Your task to perform on an android device: open app "Firefox Browser" (install if not already installed) Image 0: 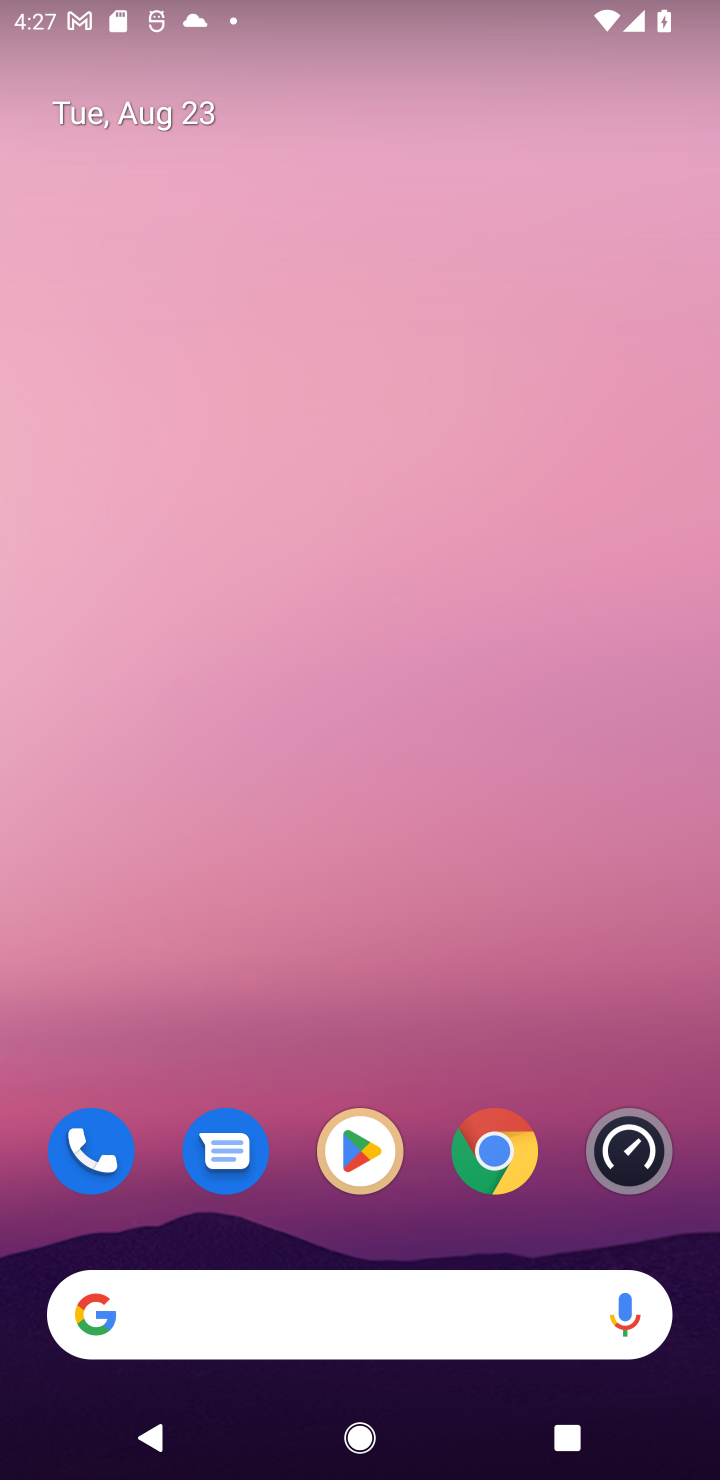
Step 0: click (355, 1147)
Your task to perform on an android device: open app "Firefox Browser" (install if not already installed) Image 1: 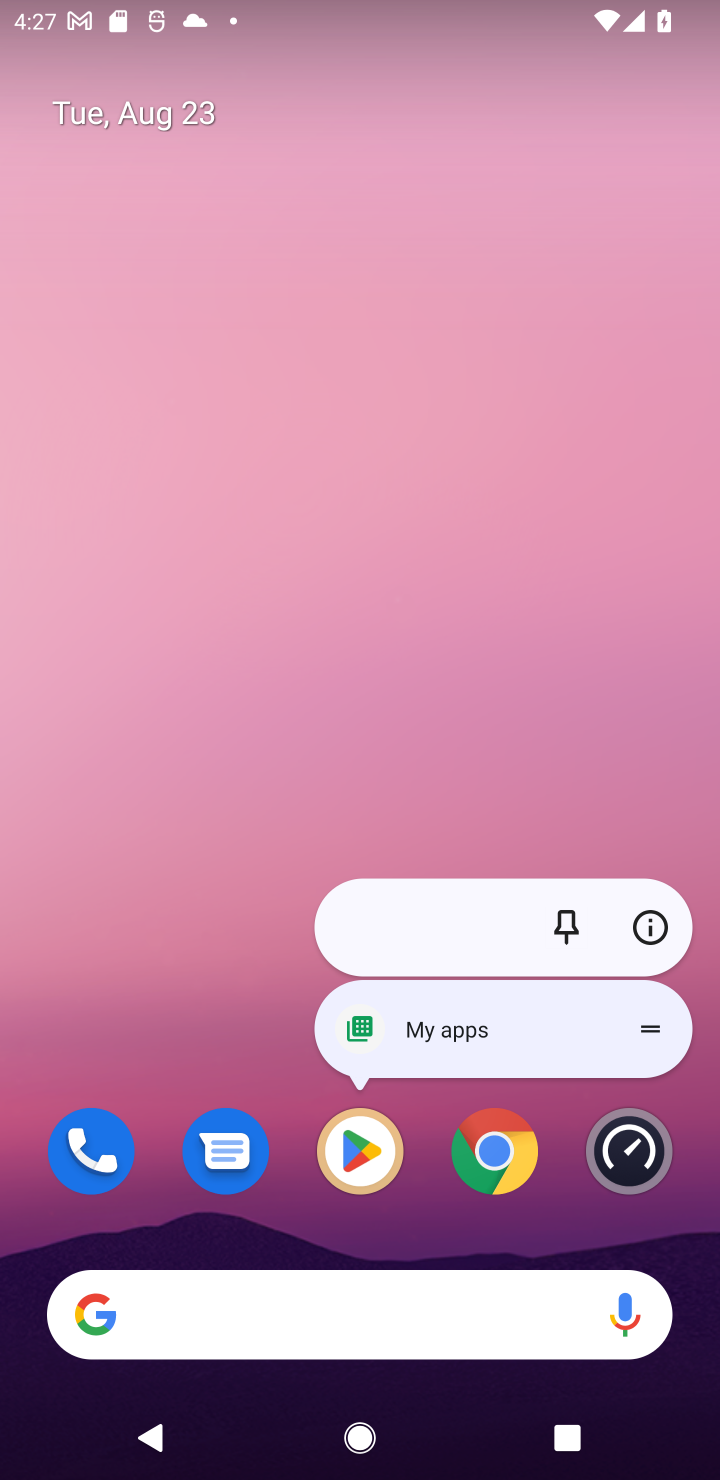
Step 1: click (355, 1157)
Your task to perform on an android device: open app "Firefox Browser" (install if not already installed) Image 2: 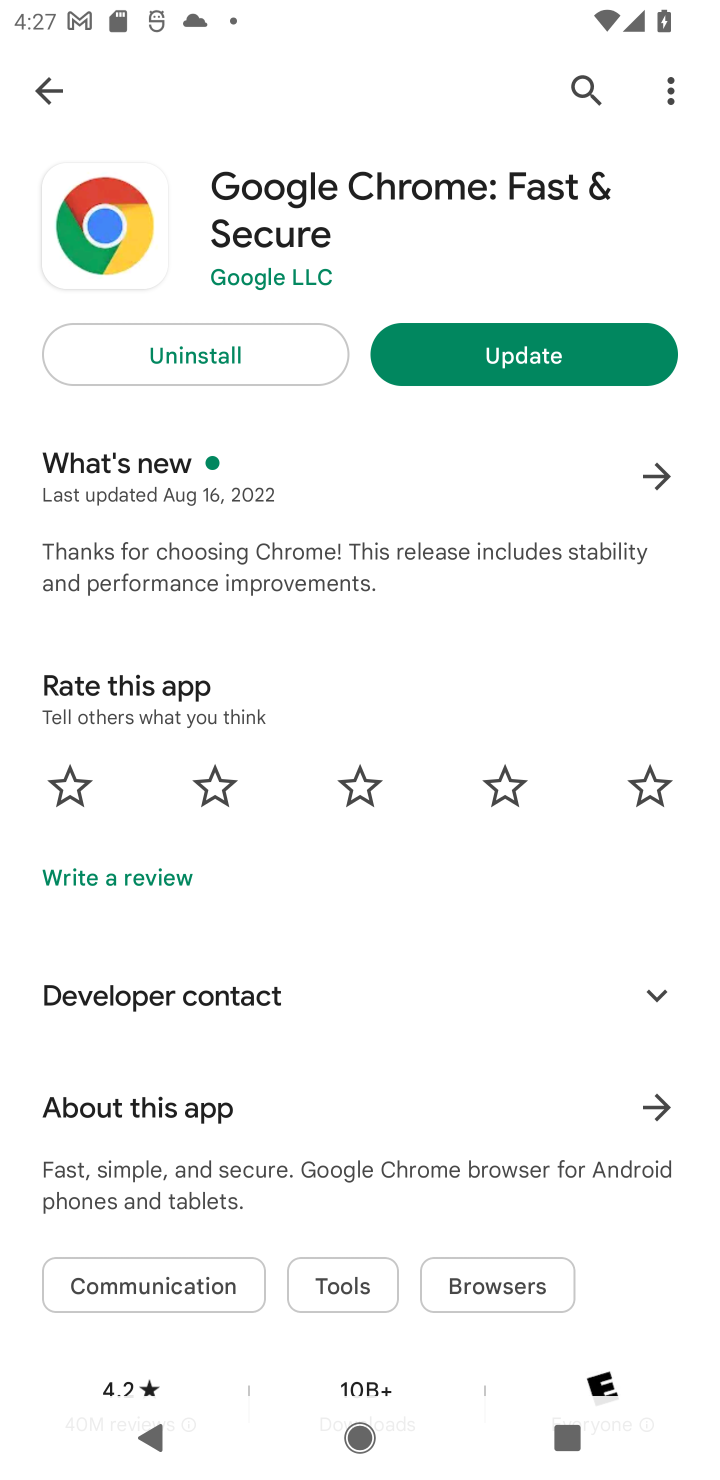
Step 2: click (570, 83)
Your task to perform on an android device: open app "Firefox Browser" (install if not already installed) Image 3: 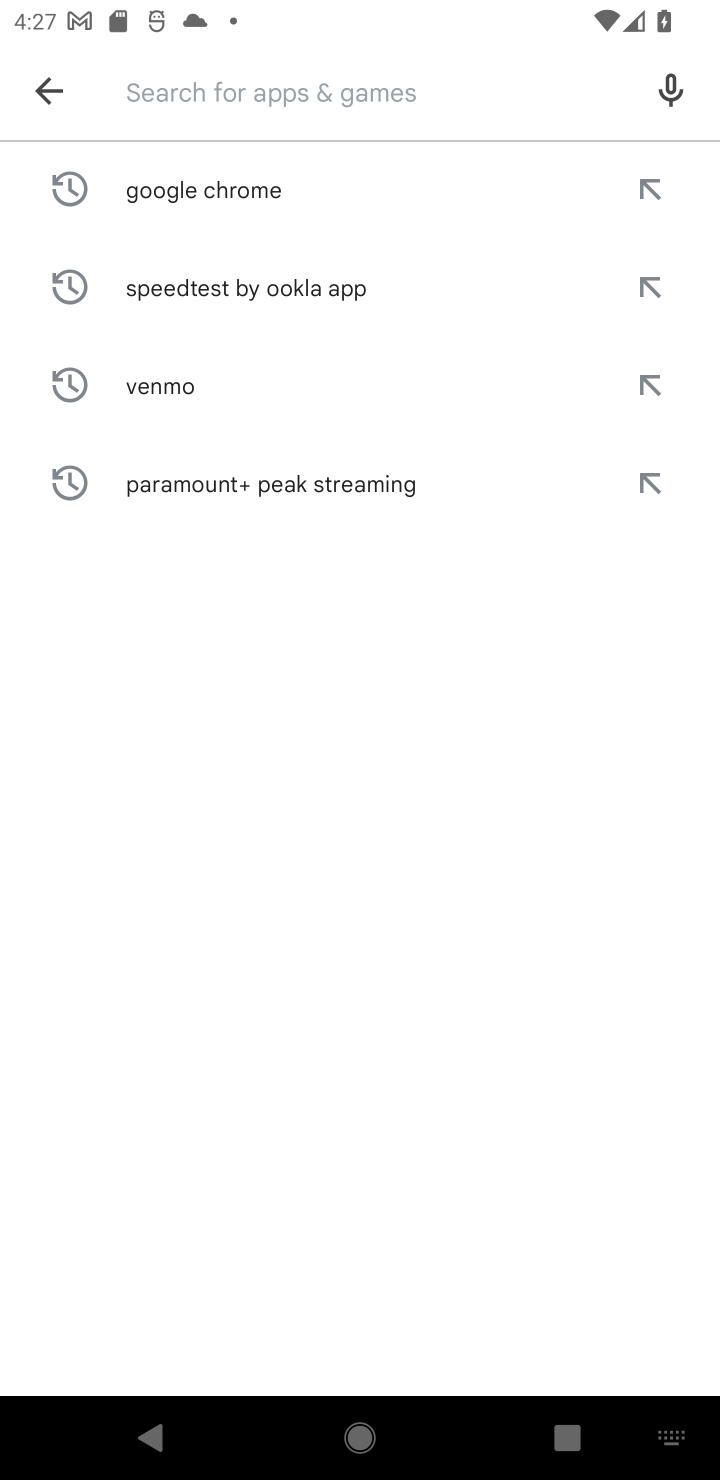
Step 3: type "Firefox Browser"
Your task to perform on an android device: open app "Firefox Browser" (install if not already installed) Image 4: 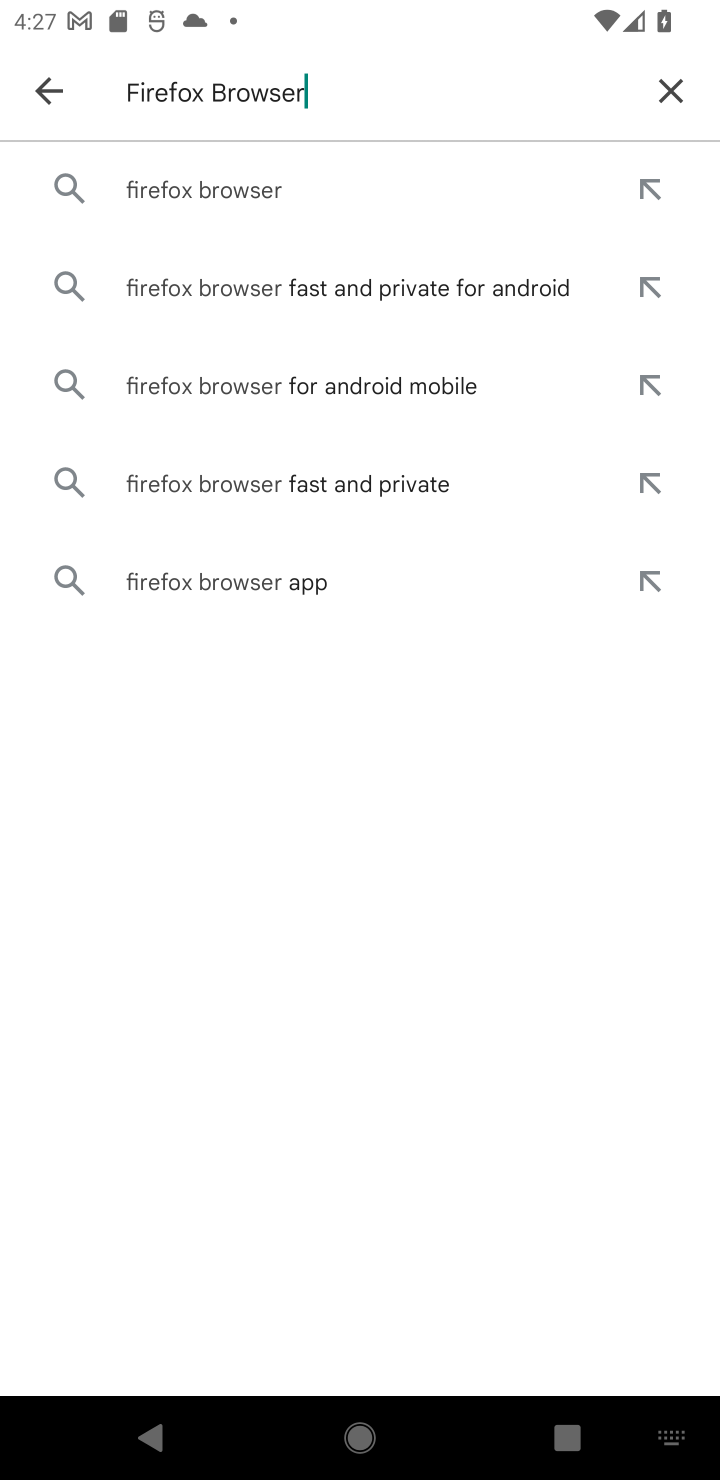
Step 4: click (188, 183)
Your task to perform on an android device: open app "Firefox Browser" (install if not already installed) Image 5: 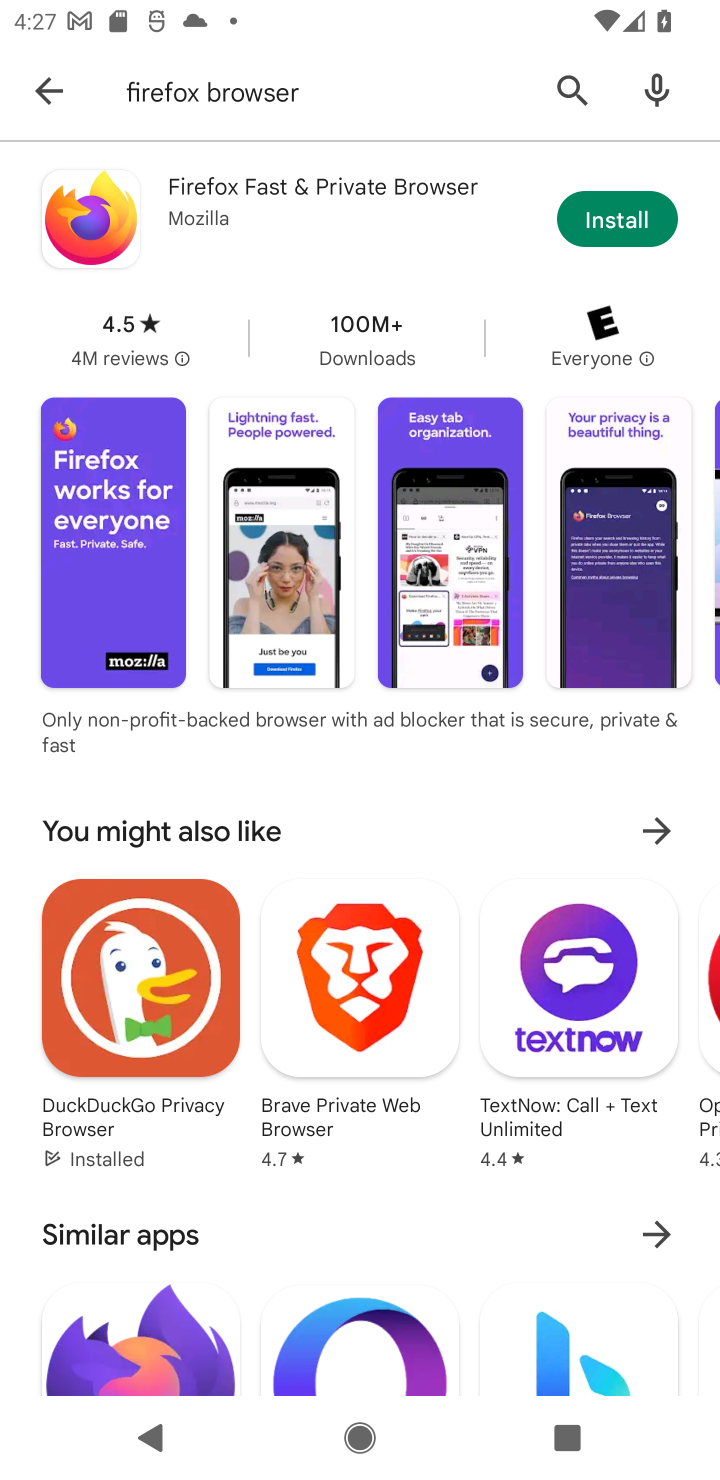
Step 5: click (597, 204)
Your task to perform on an android device: open app "Firefox Browser" (install if not already installed) Image 6: 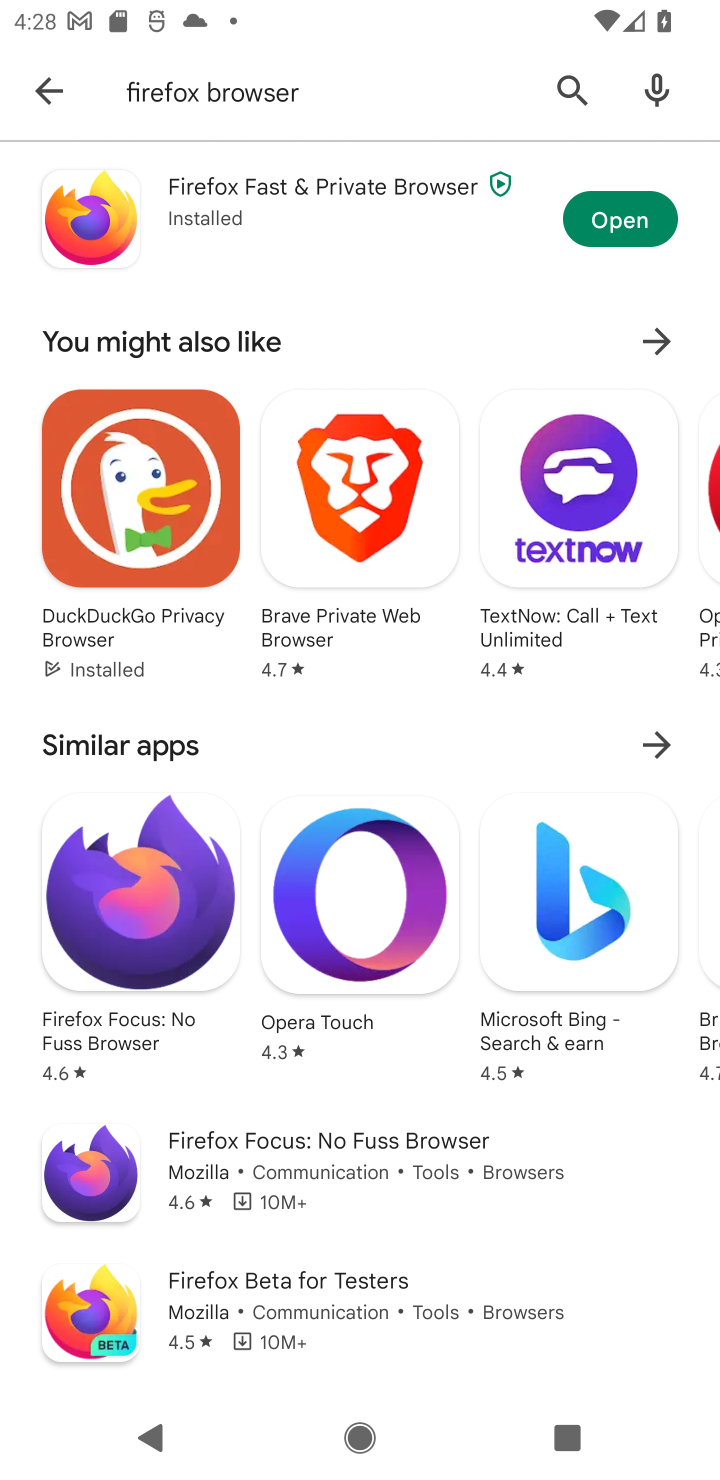
Step 6: click (633, 215)
Your task to perform on an android device: open app "Firefox Browser" (install if not already installed) Image 7: 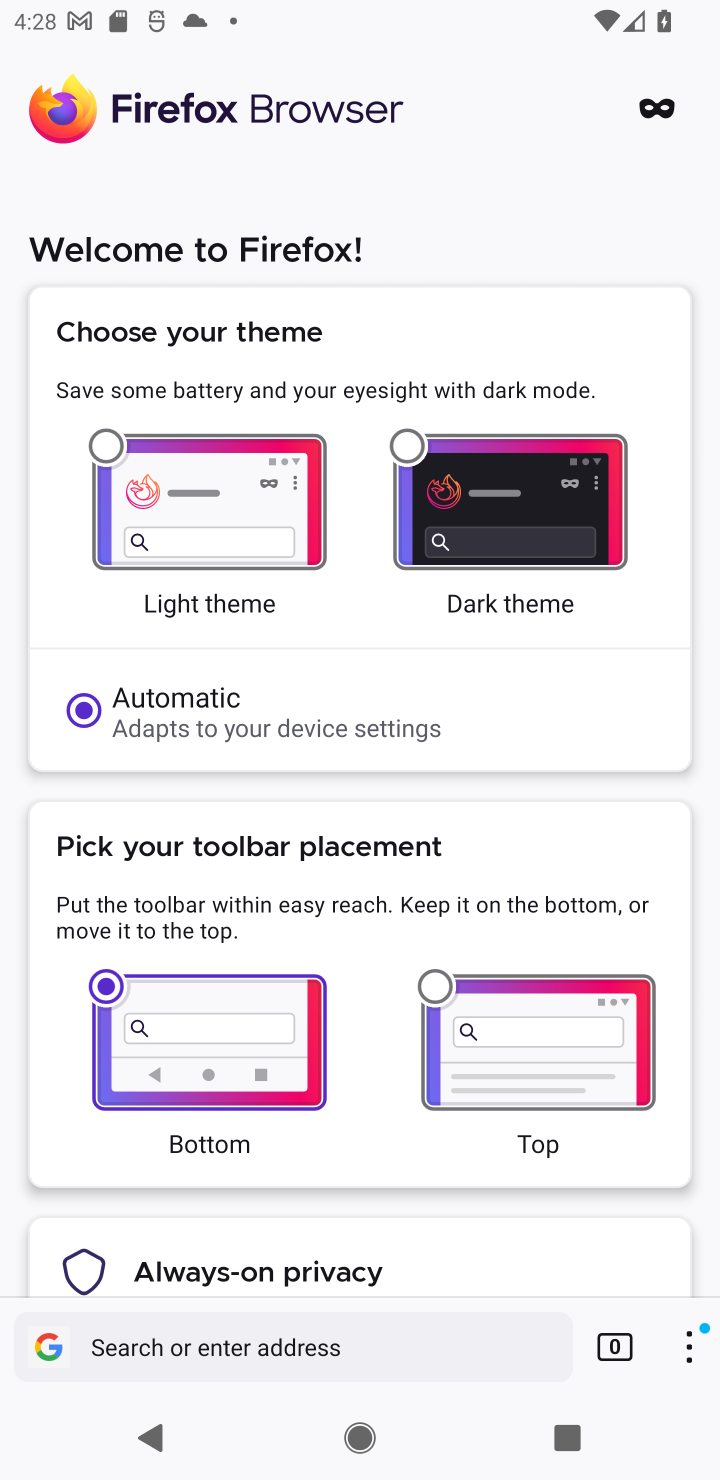
Step 7: task complete